Your task to perform on an android device: Go to internet settings Image 0: 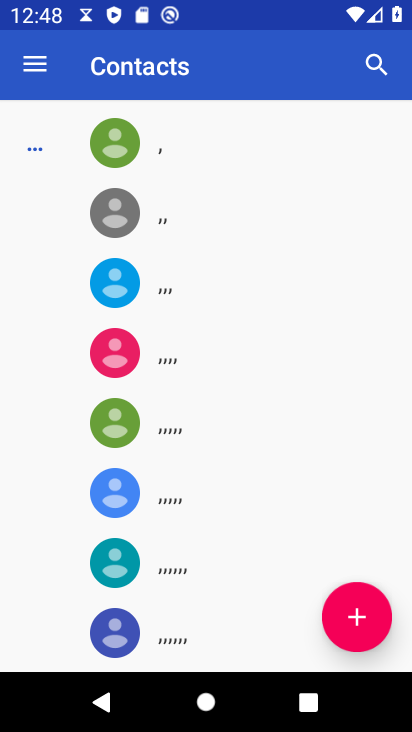
Step 0: press home button
Your task to perform on an android device: Go to internet settings Image 1: 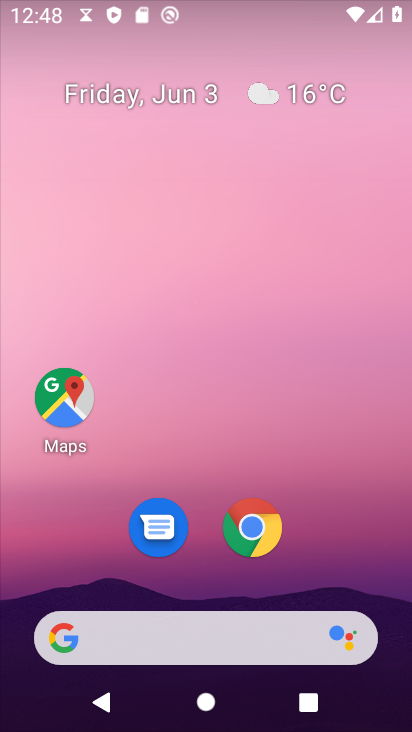
Step 1: drag from (319, 568) to (304, 46)
Your task to perform on an android device: Go to internet settings Image 2: 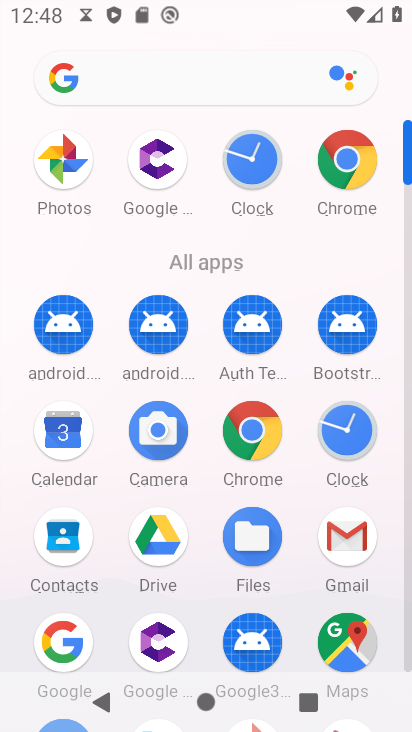
Step 2: drag from (103, 611) to (122, 162)
Your task to perform on an android device: Go to internet settings Image 3: 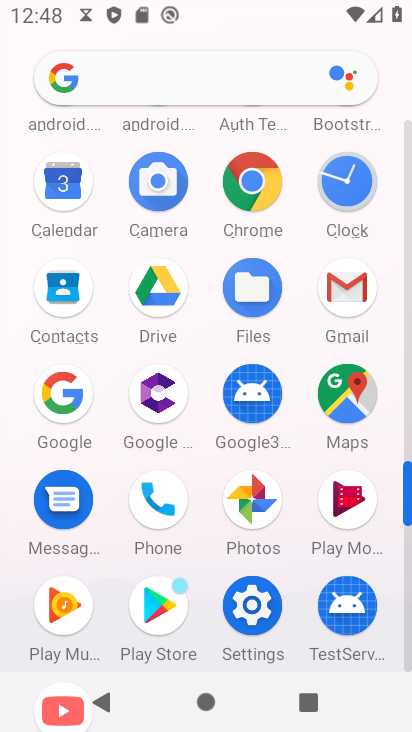
Step 3: click (248, 604)
Your task to perform on an android device: Go to internet settings Image 4: 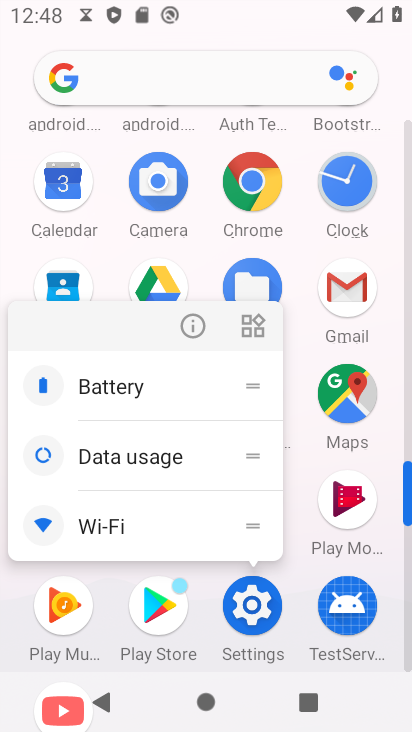
Step 4: click (255, 612)
Your task to perform on an android device: Go to internet settings Image 5: 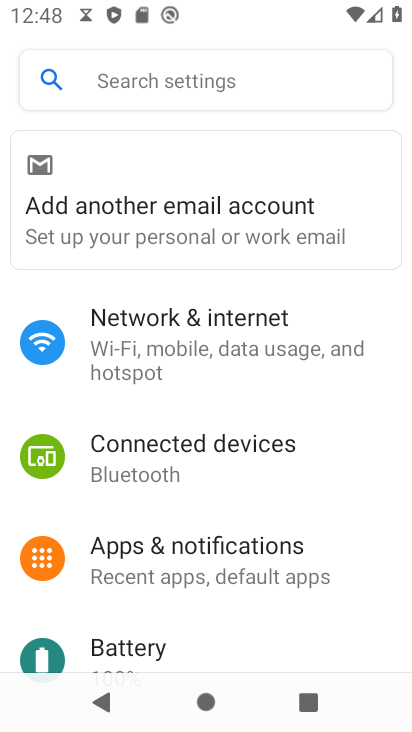
Step 5: click (156, 319)
Your task to perform on an android device: Go to internet settings Image 6: 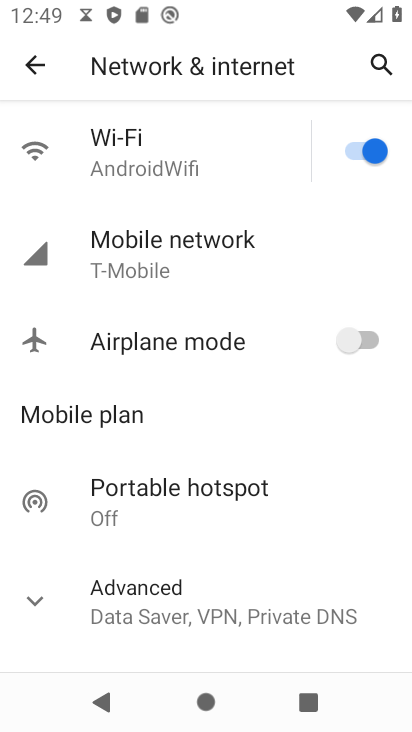
Step 6: task complete